Your task to perform on an android device: Show me the alarms in the clock app Image 0: 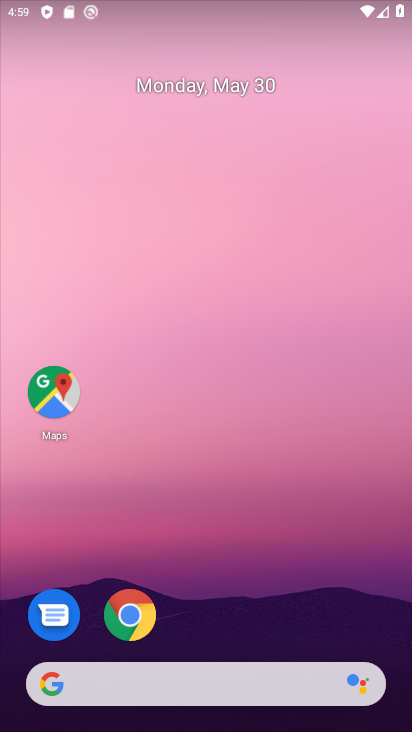
Step 0: drag from (182, 643) to (203, 91)
Your task to perform on an android device: Show me the alarms in the clock app Image 1: 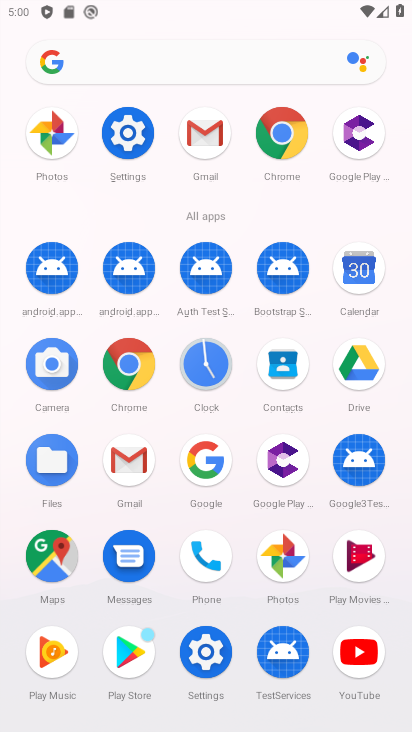
Step 1: click (202, 349)
Your task to perform on an android device: Show me the alarms in the clock app Image 2: 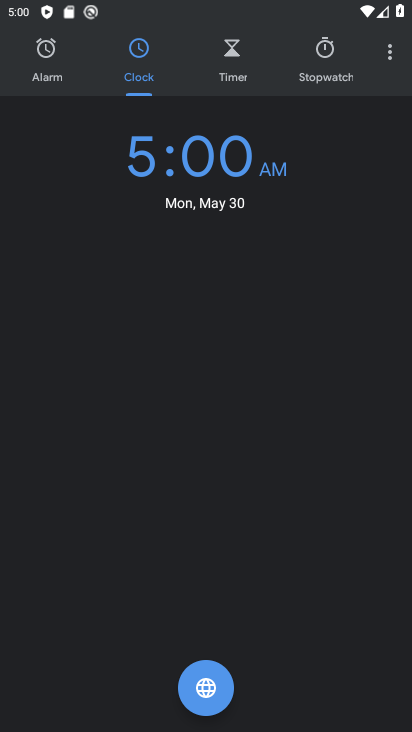
Step 2: click (54, 69)
Your task to perform on an android device: Show me the alarms in the clock app Image 3: 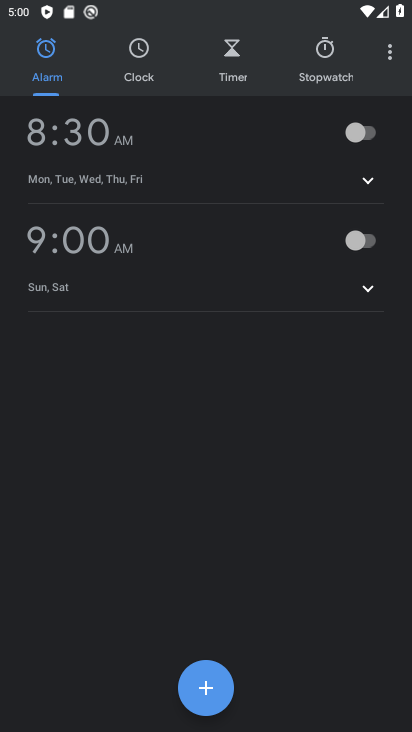
Step 3: task complete